Your task to perform on an android device: manage bookmarks in the chrome app Image 0: 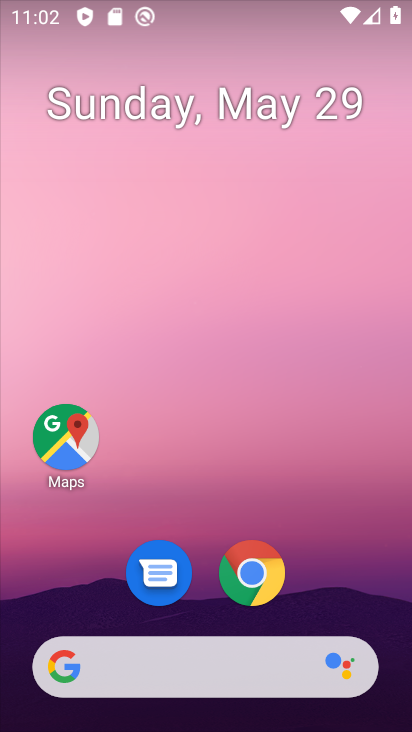
Step 0: click (261, 582)
Your task to perform on an android device: manage bookmarks in the chrome app Image 1: 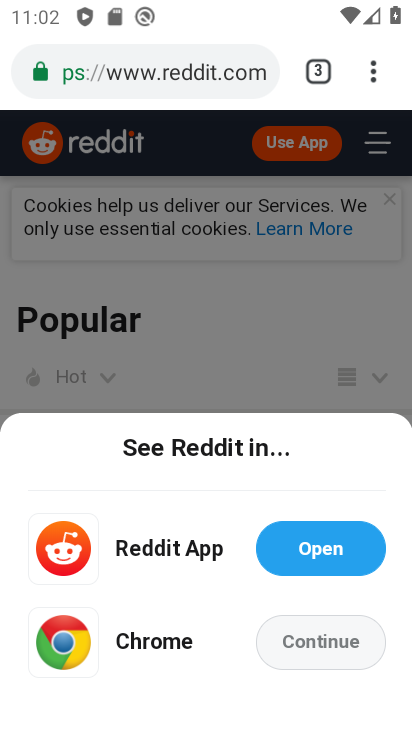
Step 1: click (374, 77)
Your task to perform on an android device: manage bookmarks in the chrome app Image 2: 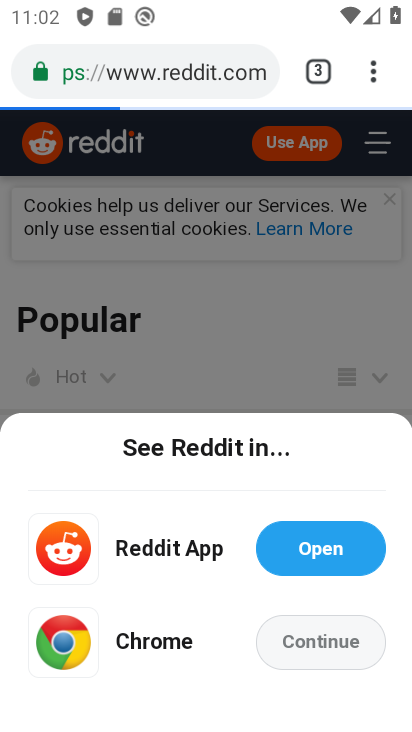
Step 2: drag from (374, 77) to (124, 371)
Your task to perform on an android device: manage bookmarks in the chrome app Image 3: 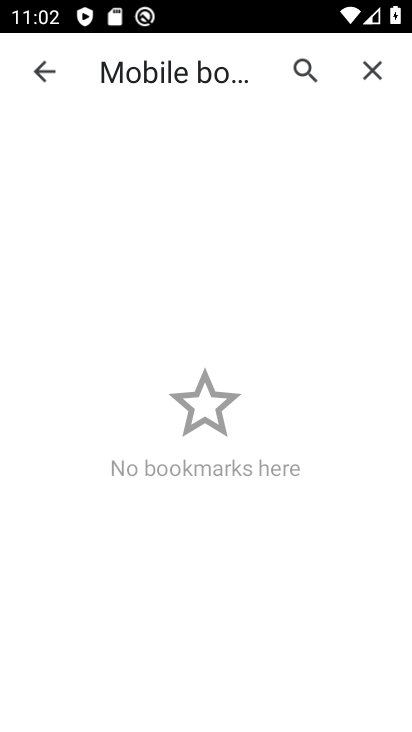
Step 3: click (226, 462)
Your task to perform on an android device: manage bookmarks in the chrome app Image 4: 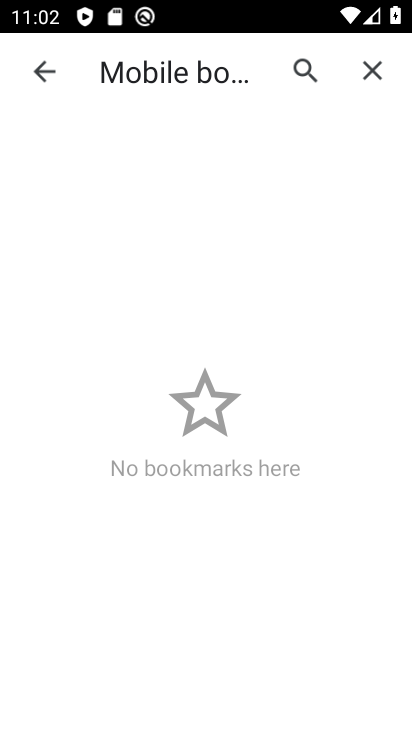
Step 4: click (228, 391)
Your task to perform on an android device: manage bookmarks in the chrome app Image 5: 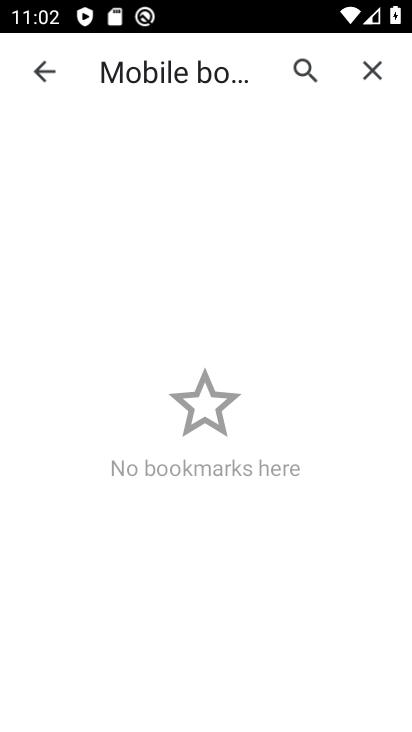
Step 5: click (199, 397)
Your task to perform on an android device: manage bookmarks in the chrome app Image 6: 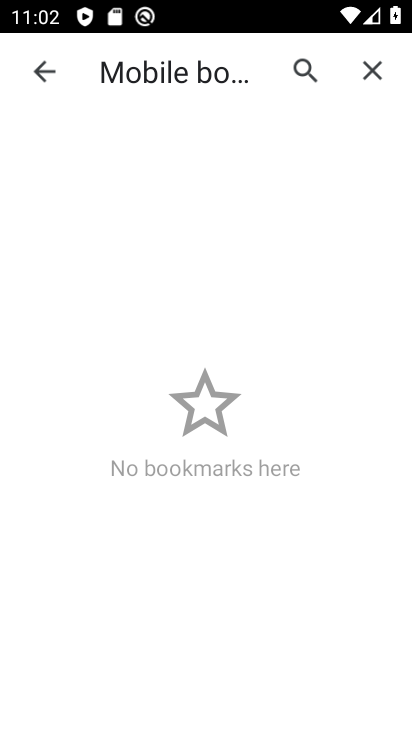
Step 6: task complete